Your task to perform on an android device: Search for logitech g pro on walmart.com, select the first entry, and add it to the cart. Image 0: 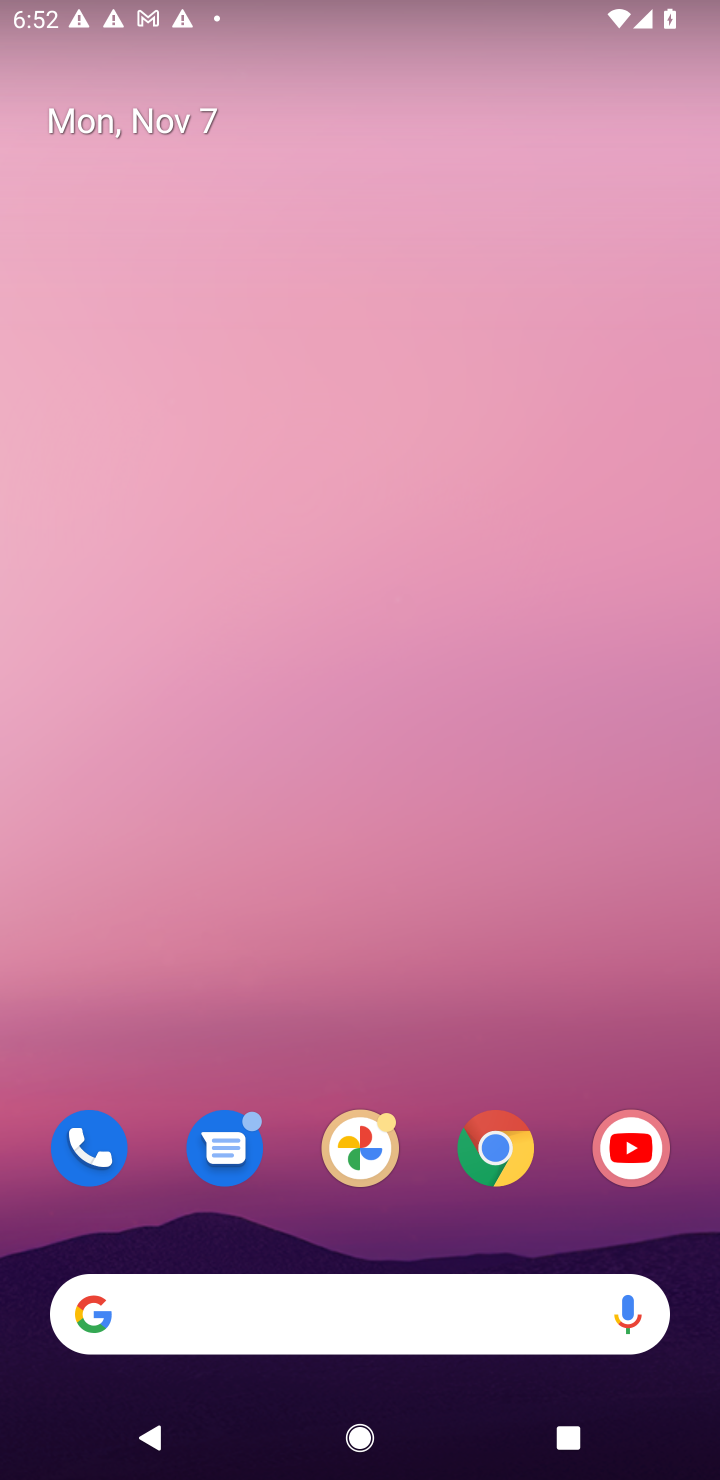
Step 0: click (504, 1135)
Your task to perform on an android device: Search for logitech g pro on walmart.com, select the first entry, and add it to the cart. Image 1: 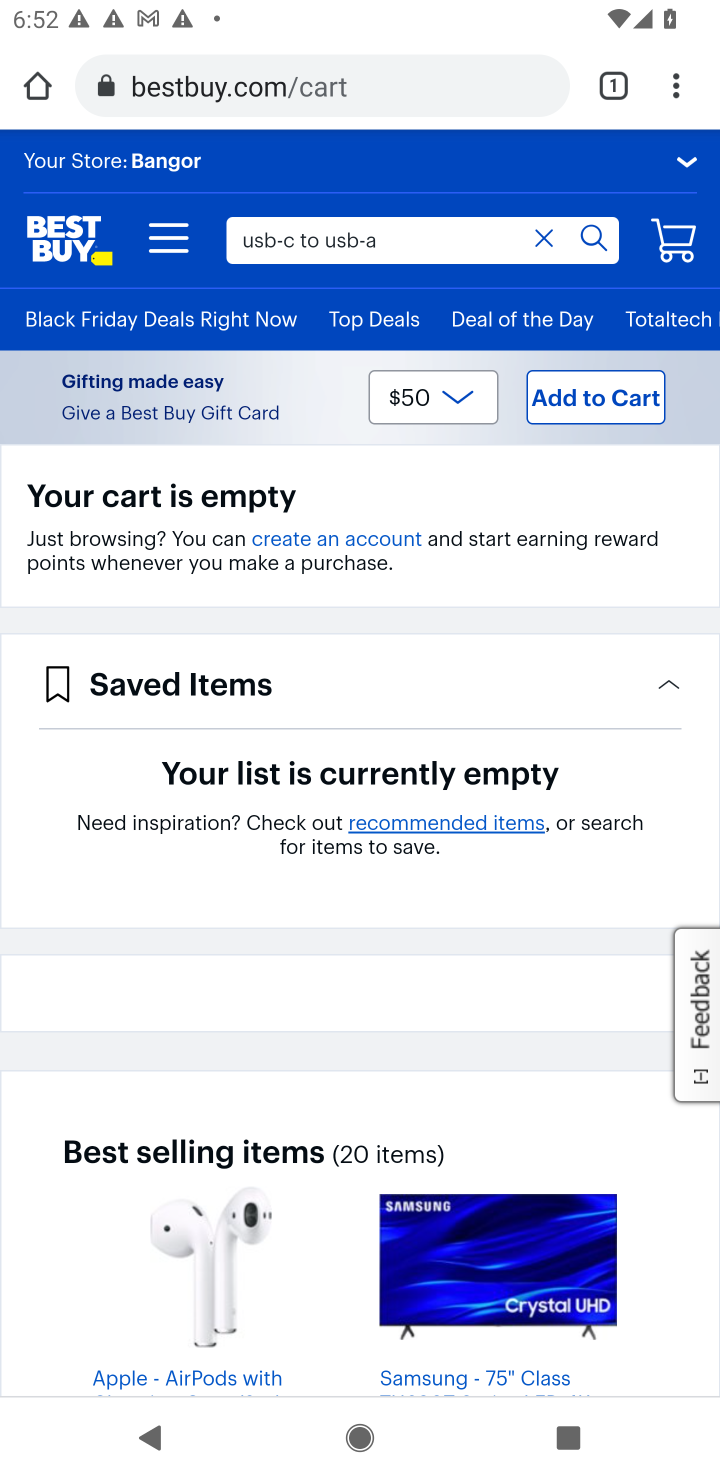
Step 1: click (501, 63)
Your task to perform on an android device: Search for logitech g pro on walmart.com, select the first entry, and add it to the cart. Image 2: 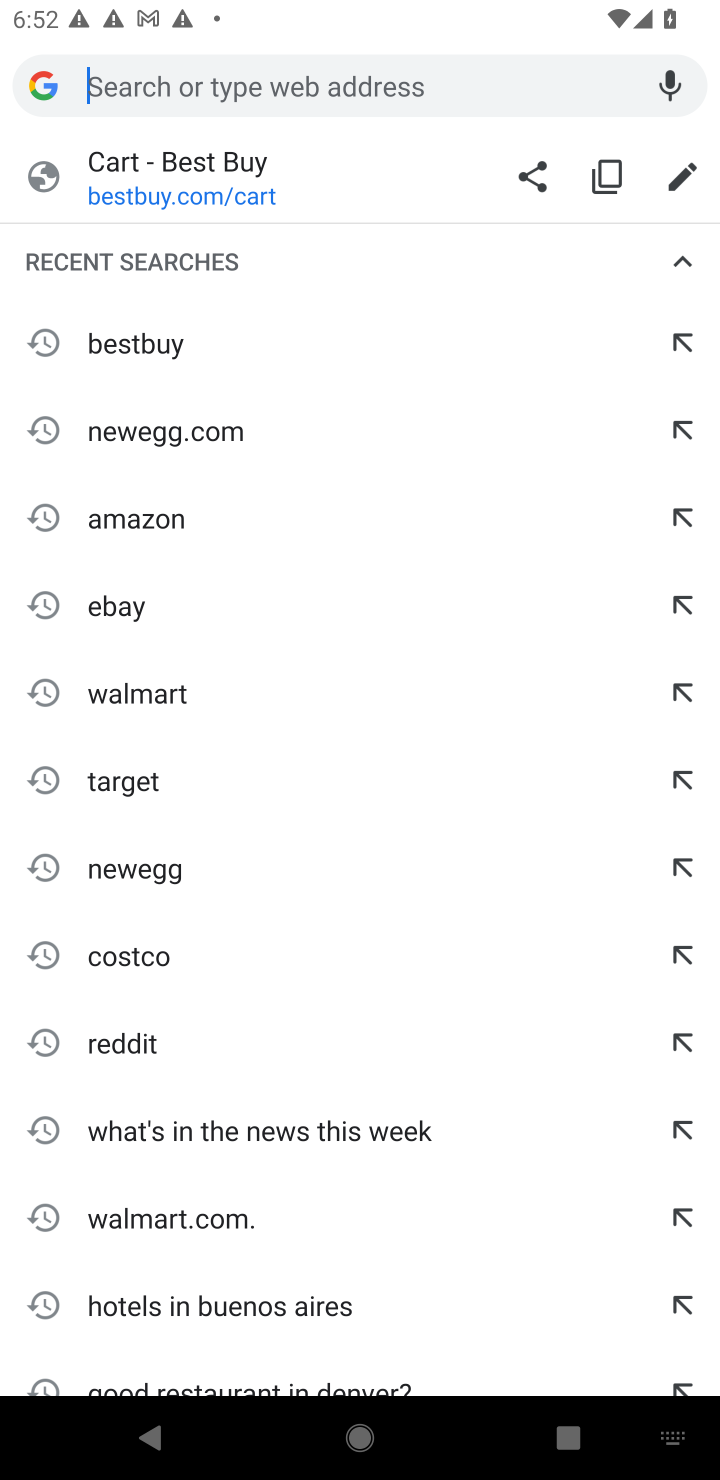
Step 2: type "walmart.com"
Your task to perform on an android device: Search for logitech g pro on walmart.com, select the first entry, and add it to the cart. Image 3: 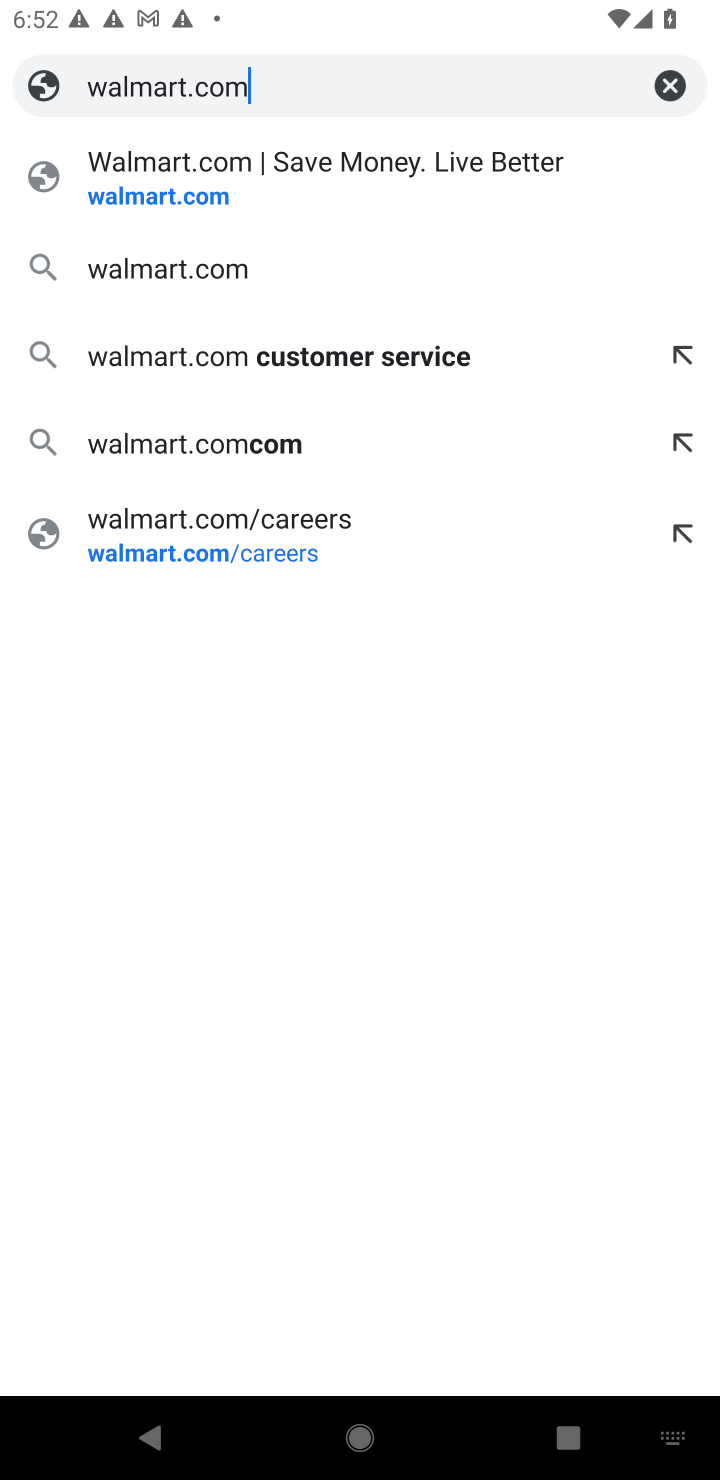
Step 3: click (141, 269)
Your task to perform on an android device: Search for logitech g pro on walmart.com, select the first entry, and add it to the cart. Image 4: 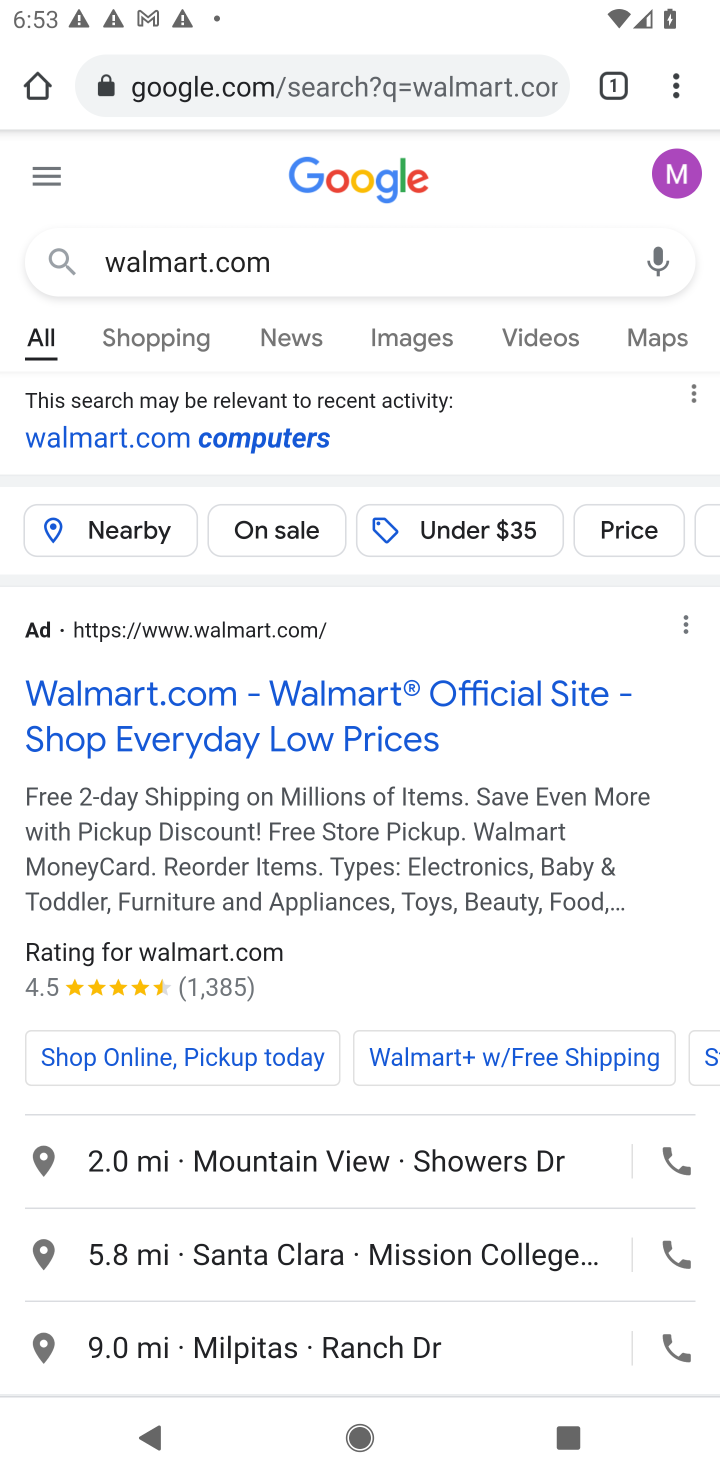
Step 4: drag from (262, 1147) to (265, 664)
Your task to perform on an android device: Search for logitech g pro on walmart.com, select the first entry, and add it to the cart. Image 5: 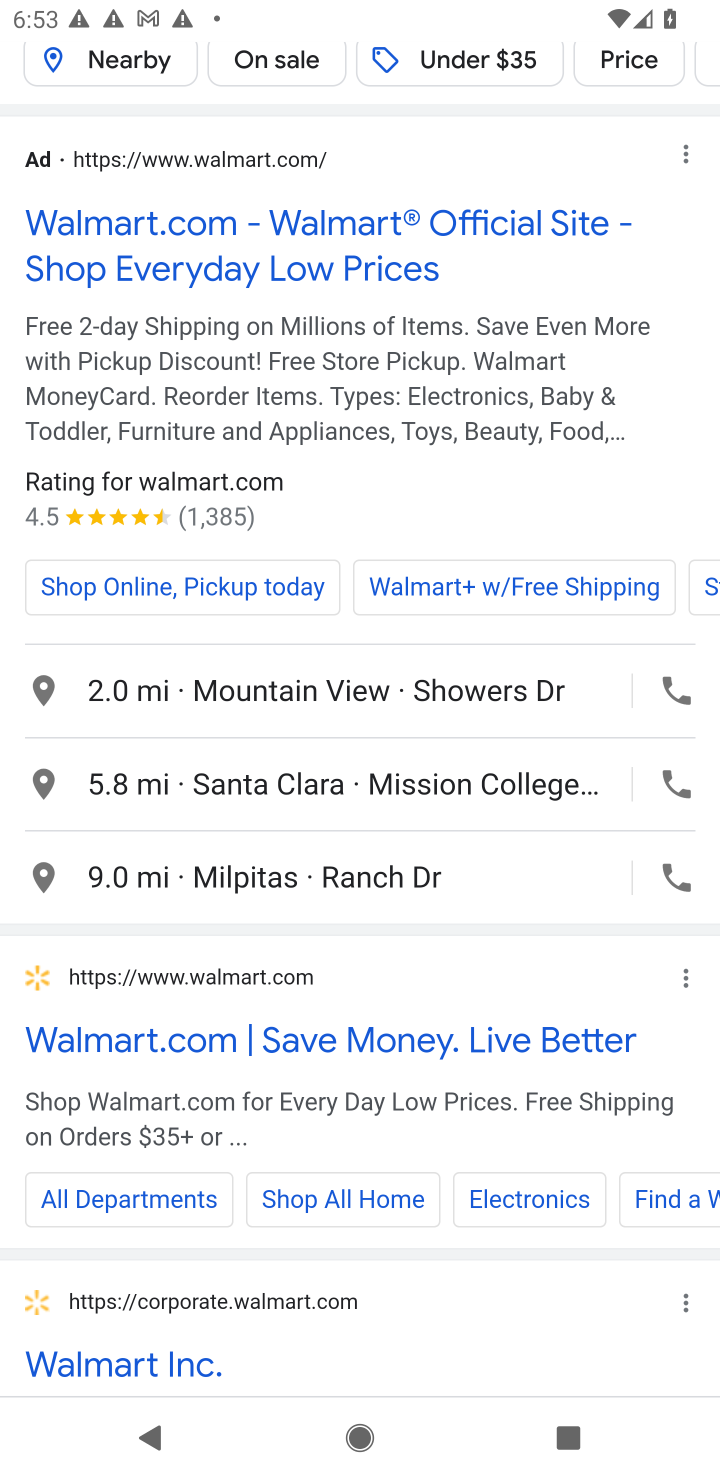
Step 5: click (240, 978)
Your task to perform on an android device: Search for logitech g pro on walmart.com, select the first entry, and add it to the cart. Image 6: 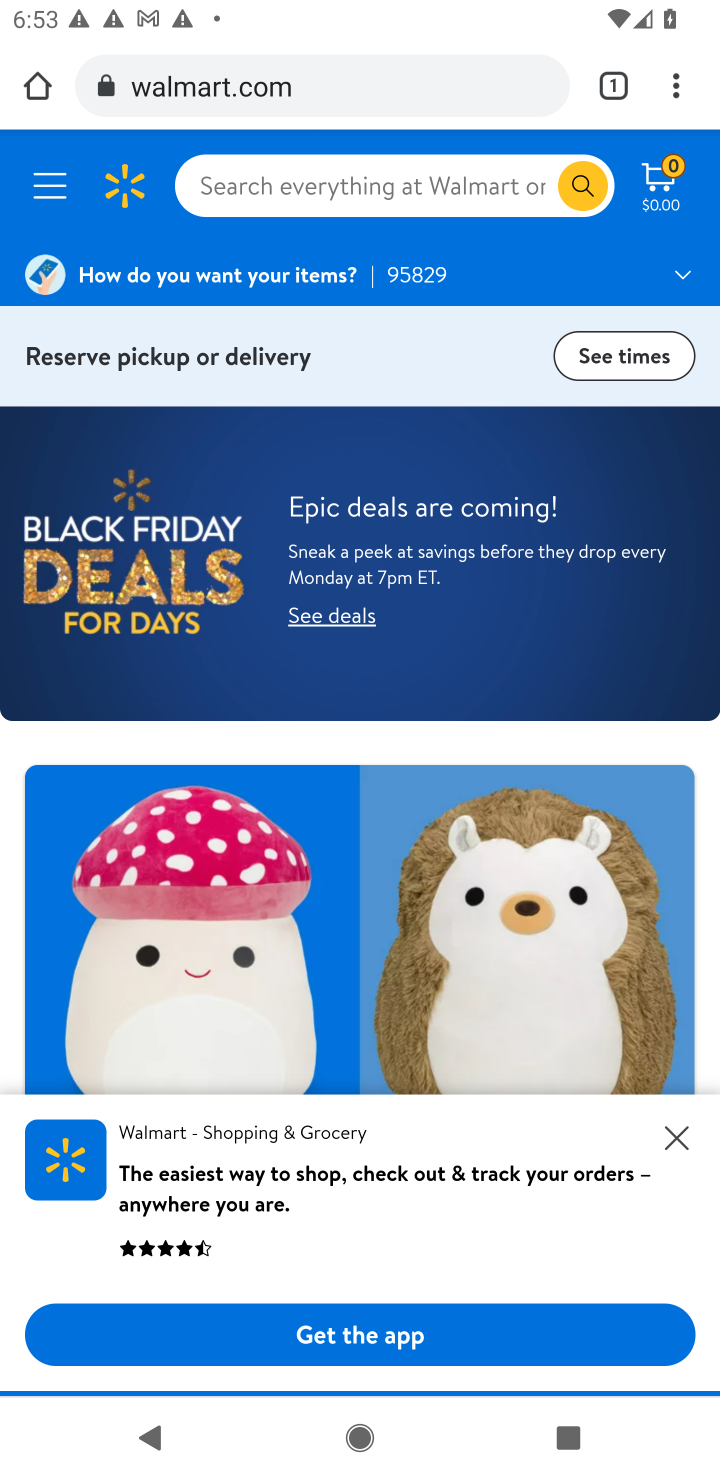
Step 6: click (437, 188)
Your task to perform on an android device: Search for logitech g pro on walmart.com, select the first entry, and add it to the cart. Image 7: 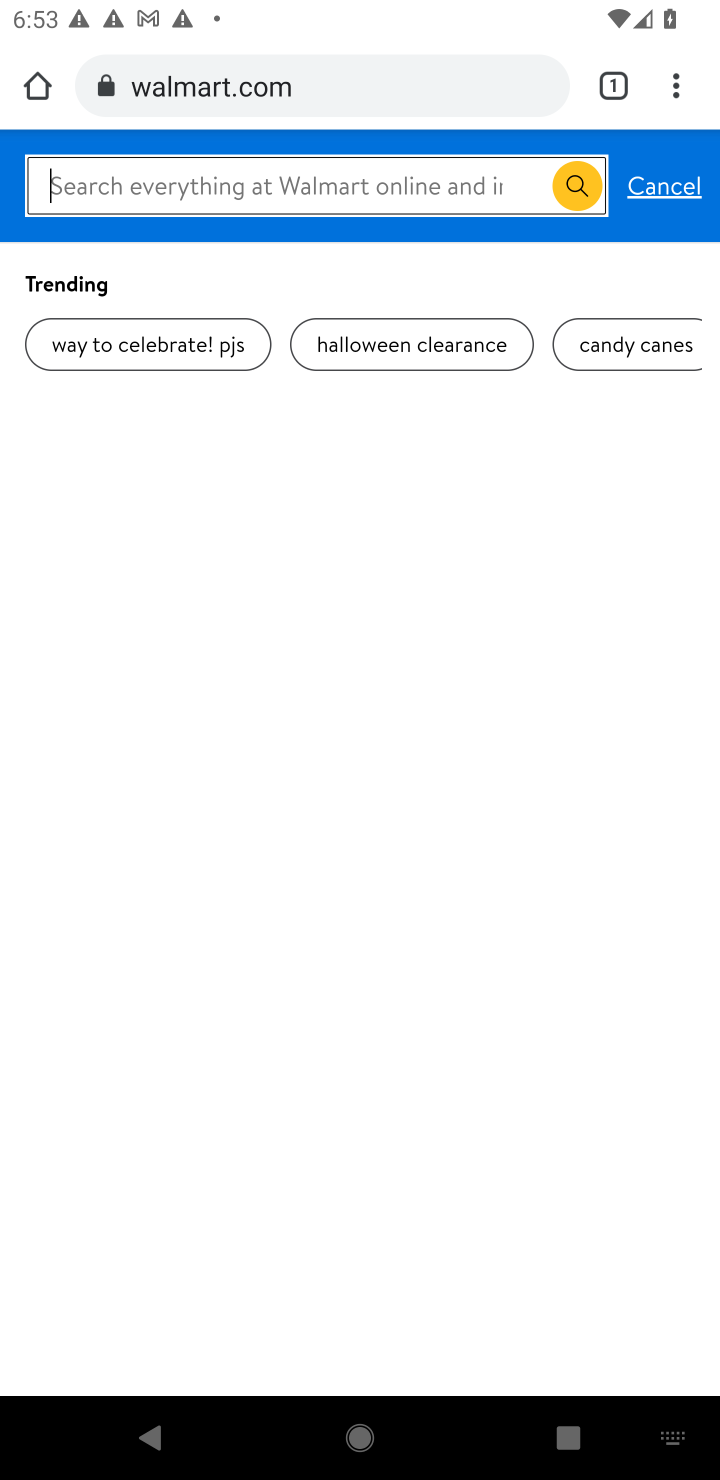
Step 7: type "logitech g pro"
Your task to perform on an android device: Search for logitech g pro on walmart.com, select the first entry, and add it to the cart. Image 8: 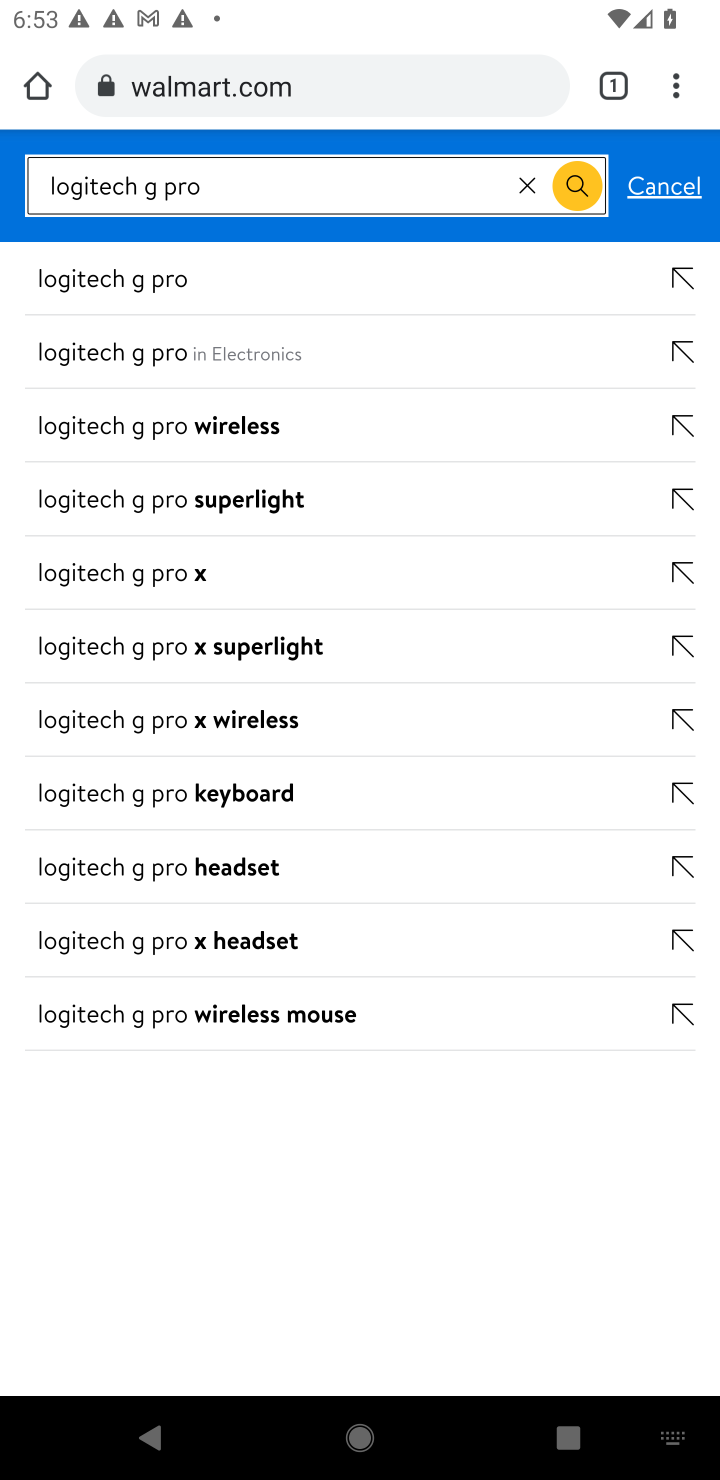
Step 8: click (130, 273)
Your task to perform on an android device: Search for logitech g pro on walmart.com, select the first entry, and add it to the cart. Image 9: 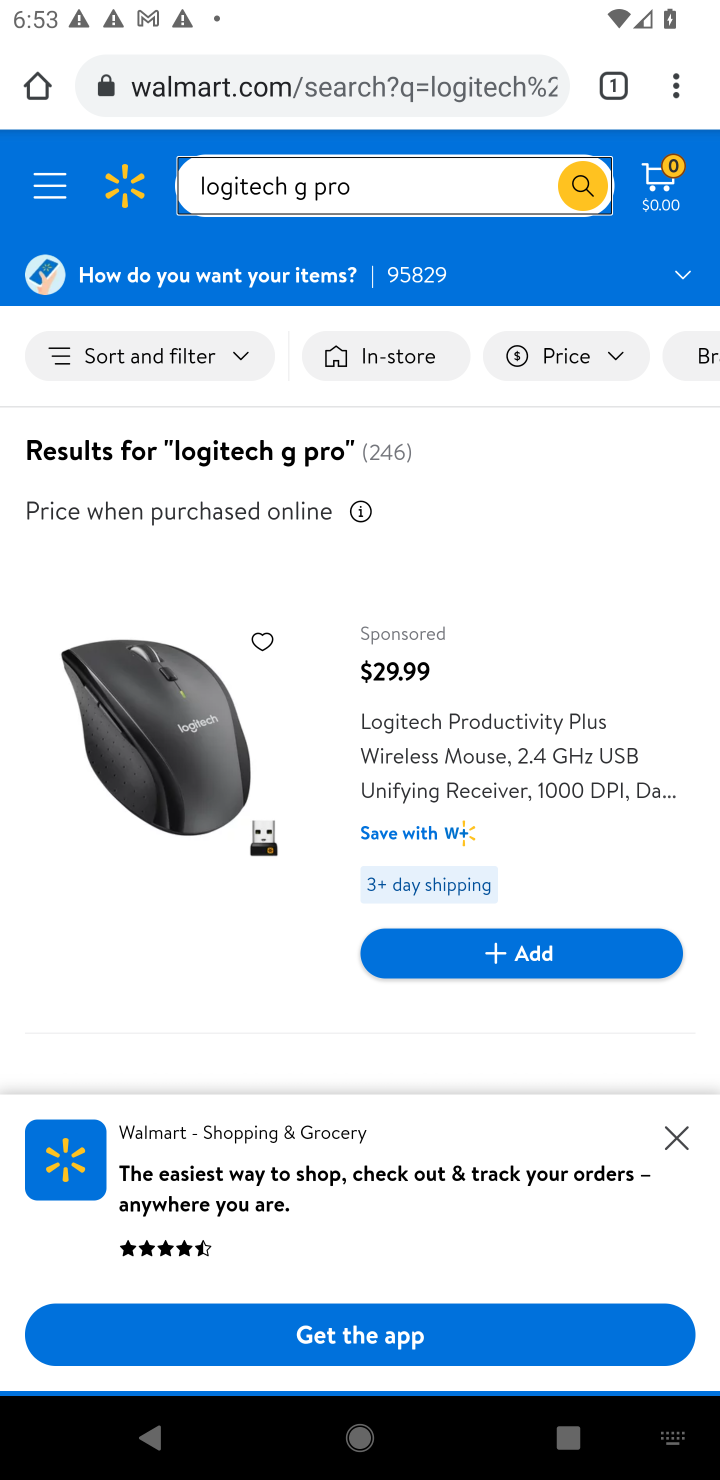
Step 9: click (682, 1128)
Your task to perform on an android device: Search for logitech g pro on walmart.com, select the first entry, and add it to the cart. Image 10: 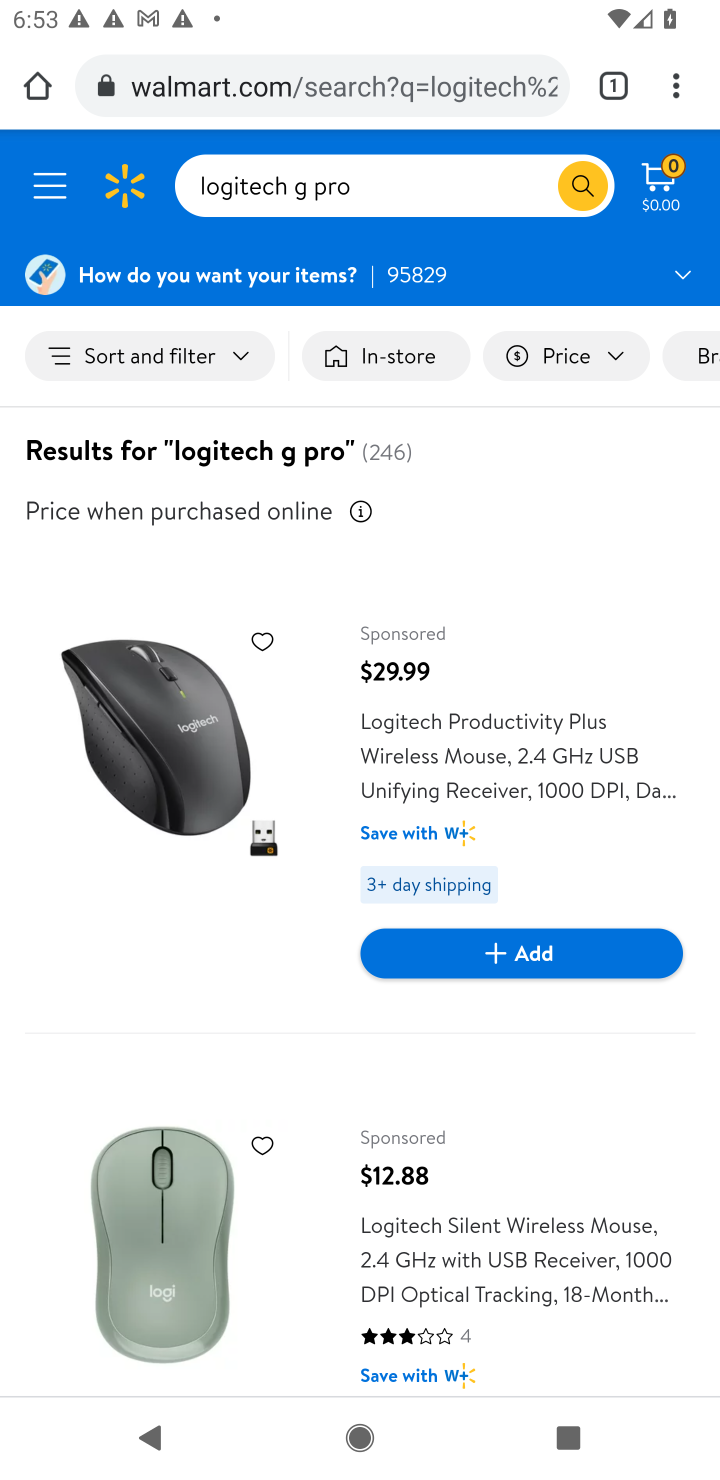
Step 10: drag from (578, 1298) to (606, 599)
Your task to perform on an android device: Search for logitech g pro on walmart.com, select the first entry, and add it to the cart. Image 11: 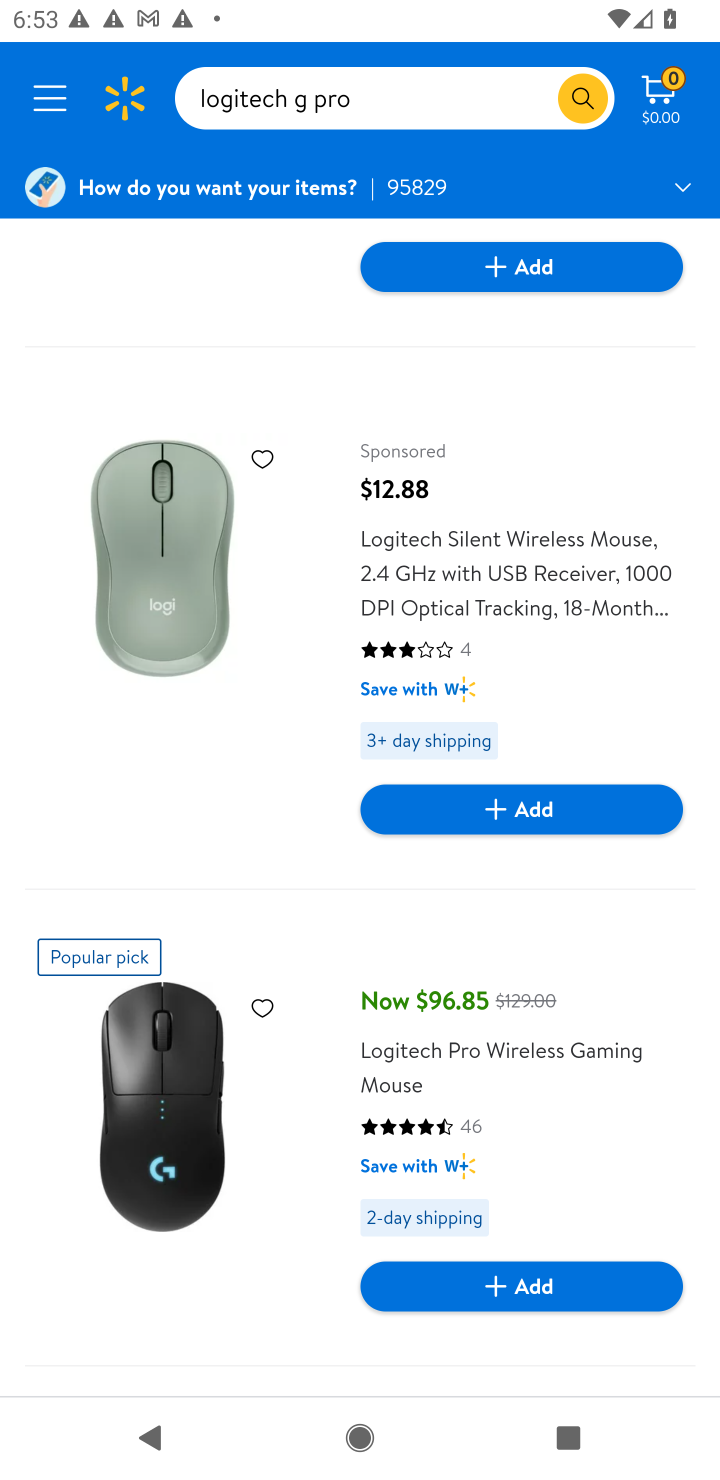
Step 11: drag from (578, 1148) to (637, 595)
Your task to perform on an android device: Search for logitech g pro on walmart.com, select the first entry, and add it to the cart. Image 12: 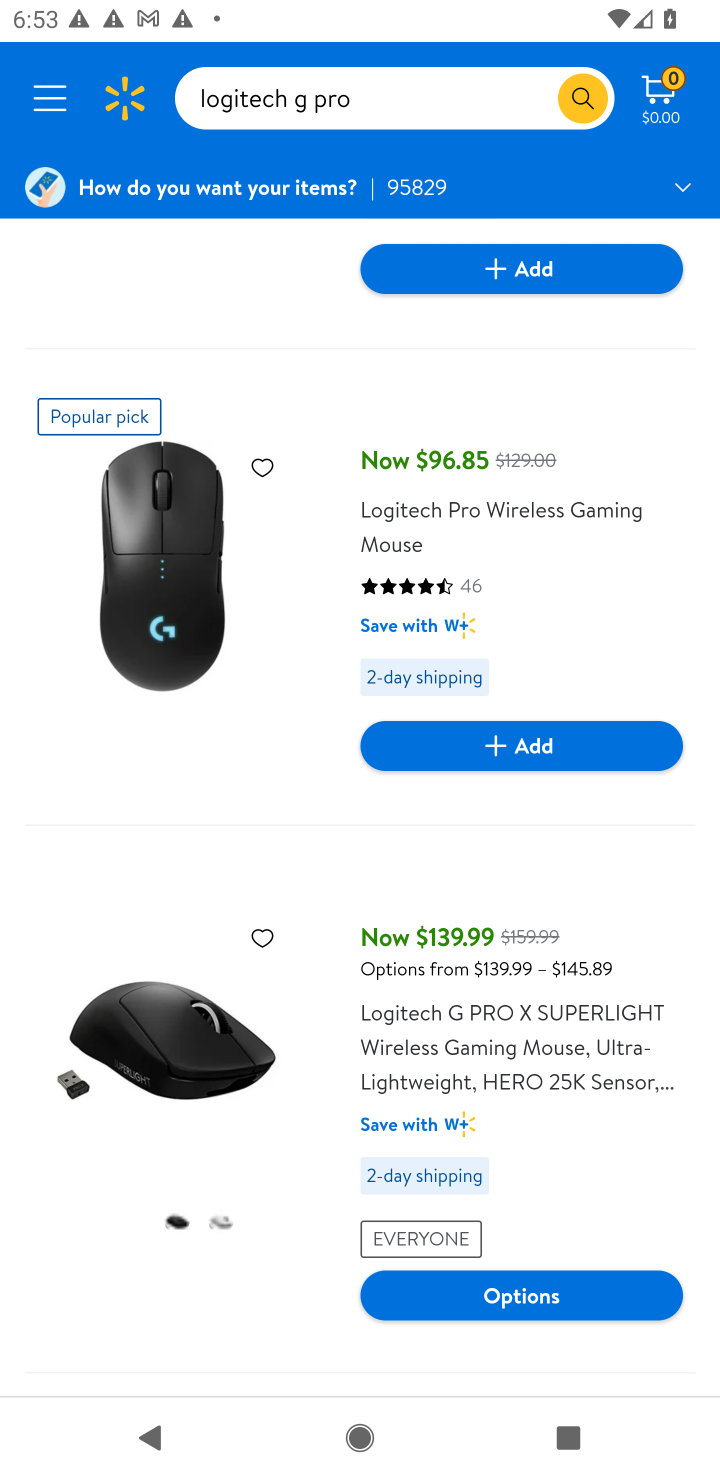
Step 12: click (188, 1074)
Your task to perform on an android device: Search for logitech g pro on walmart.com, select the first entry, and add it to the cart. Image 13: 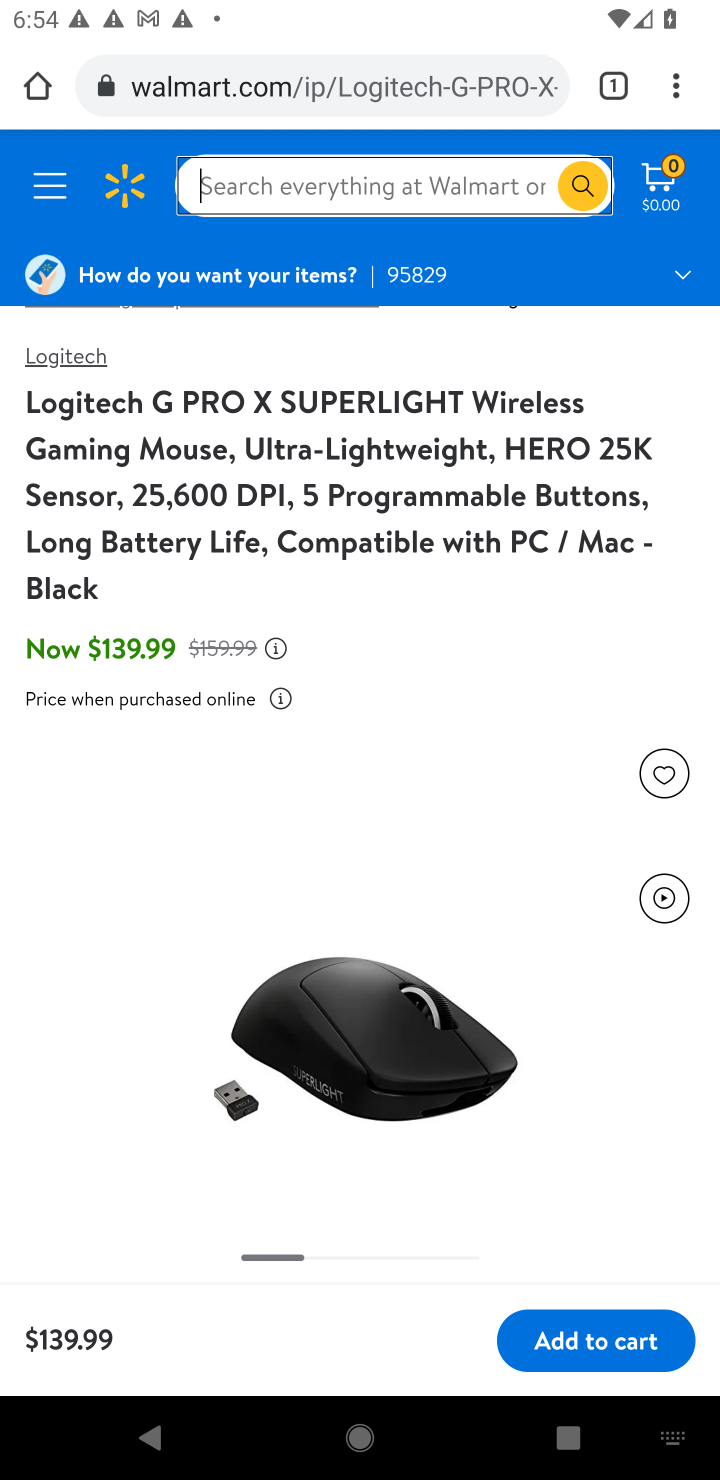
Step 13: click (611, 1329)
Your task to perform on an android device: Search for logitech g pro on walmart.com, select the first entry, and add it to the cart. Image 14: 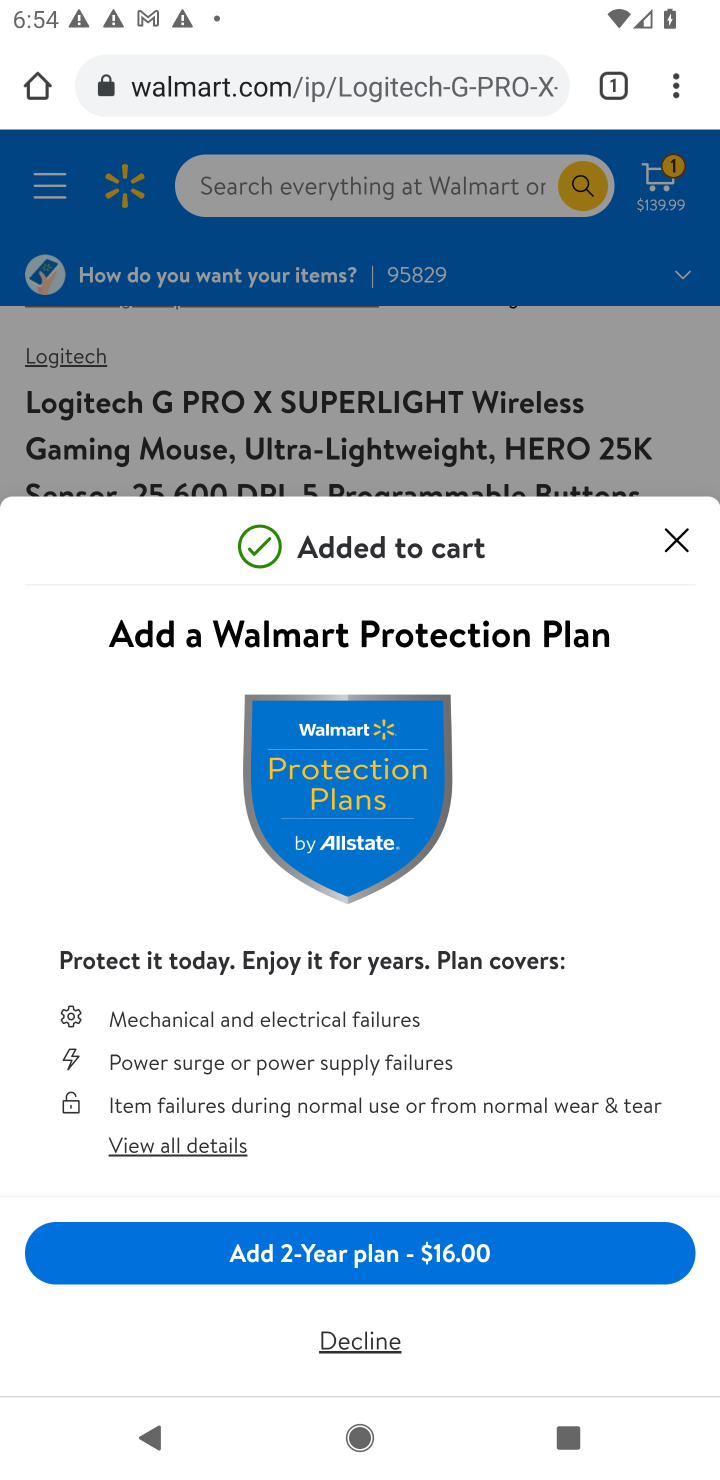
Step 14: click (688, 537)
Your task to perform on an android device: Search for logitech g pro on walmart.com, select the first entry, and add it to the cart. Image 15: 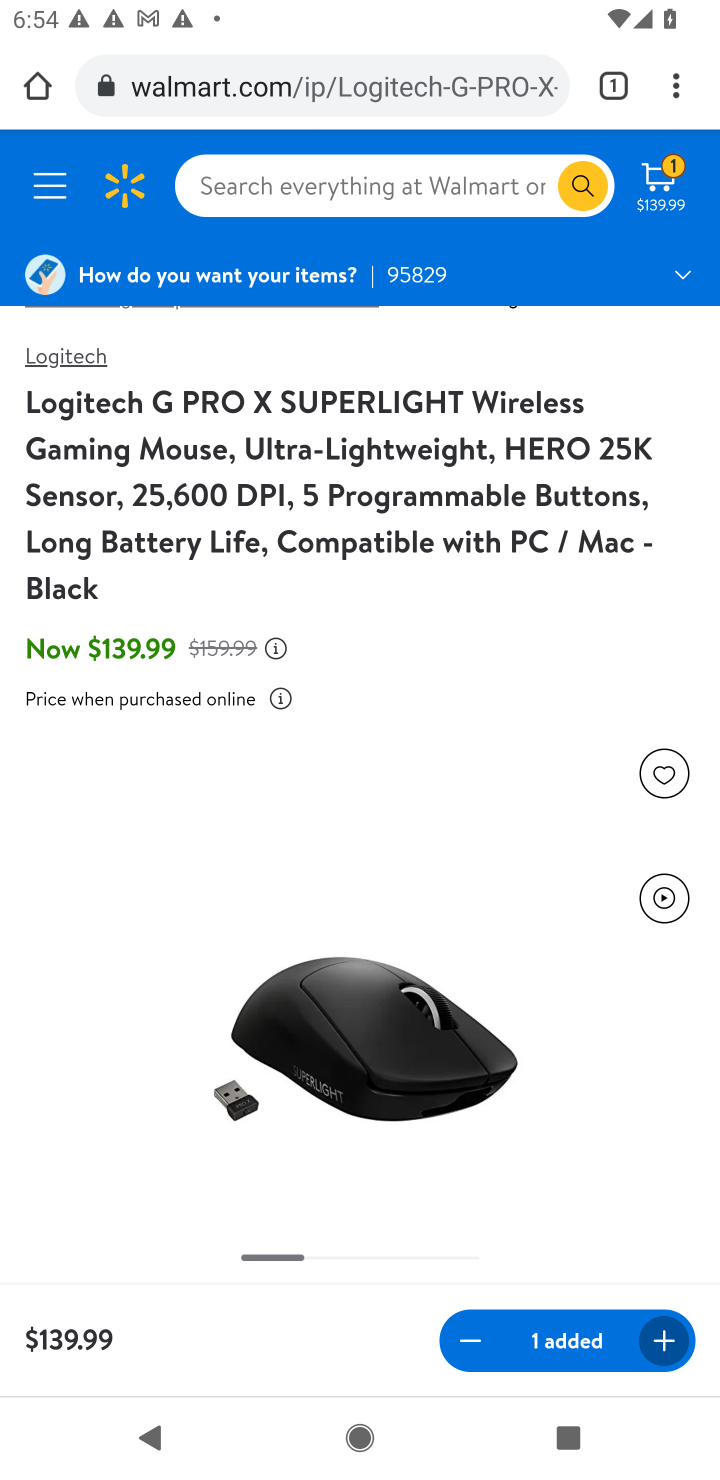
Step 15: task complete